Your task to perform on an android device: star an email in the gmail app Image 0: 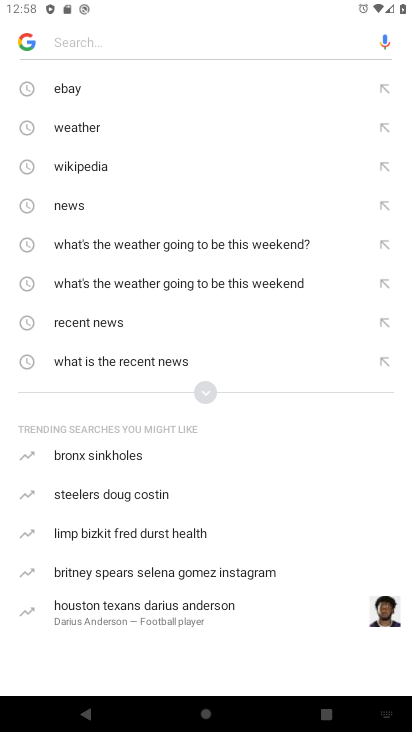
Step 0: press home button
Your task to perform on an android device: star an email in the gmail app Image 1: 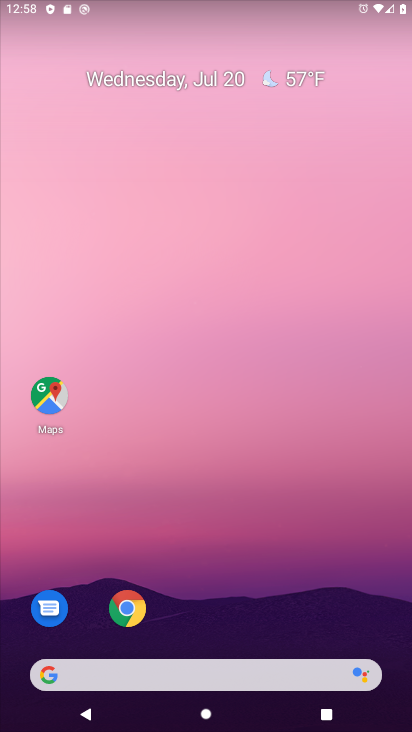
Step 1: drag from (241, 709) to (197, 199)
Your task to perform on an android device: star an email in the gmail app Image 2: 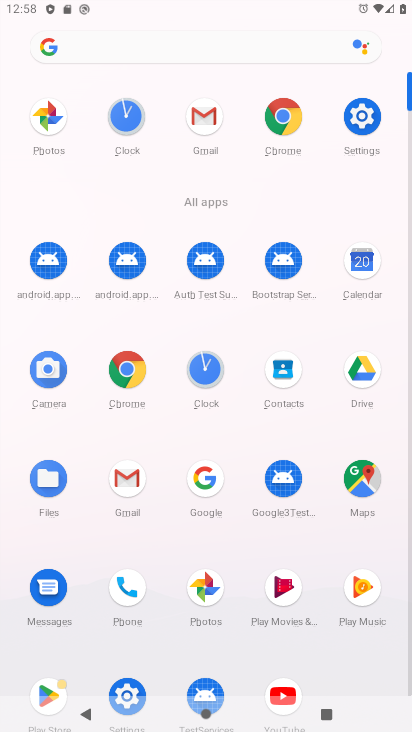
Step 2: click (136, 485)
Your task to perform on an android device: star an email in the gmail app Image 3: 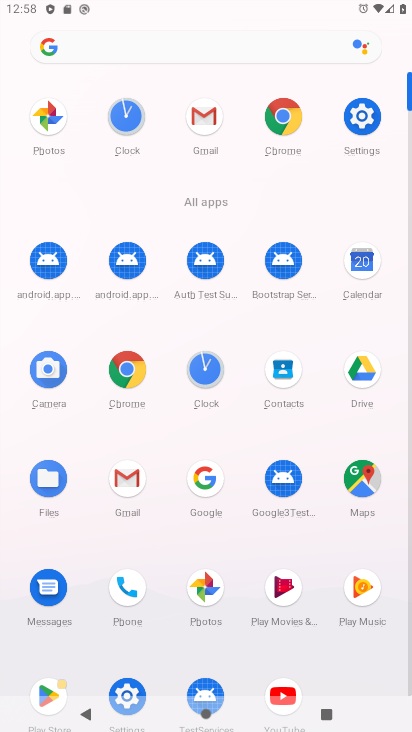
Step 3: click (136, 485)
Your task to perform on an android device: star an email in the gmail app Image 4: 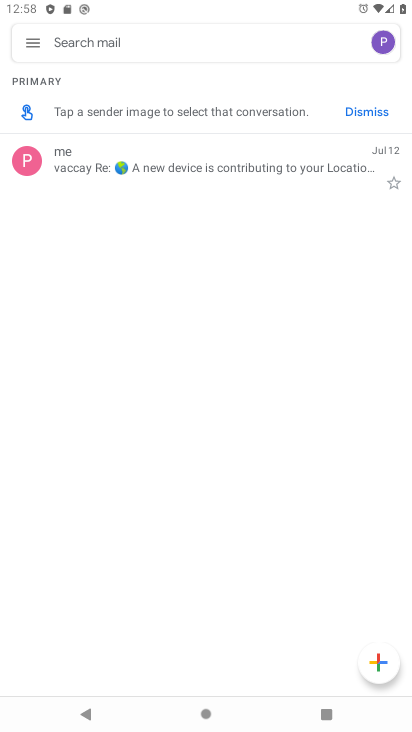
Step 4: click (392, 183)
Your task to perform on an android device: star an email in the gmail app Image 5: 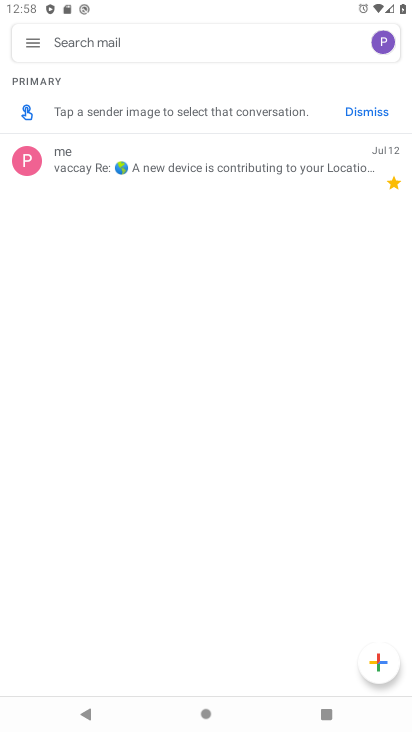
Step 5: task complete